Your task to perform on an android device: Go to notification settings Image 0: 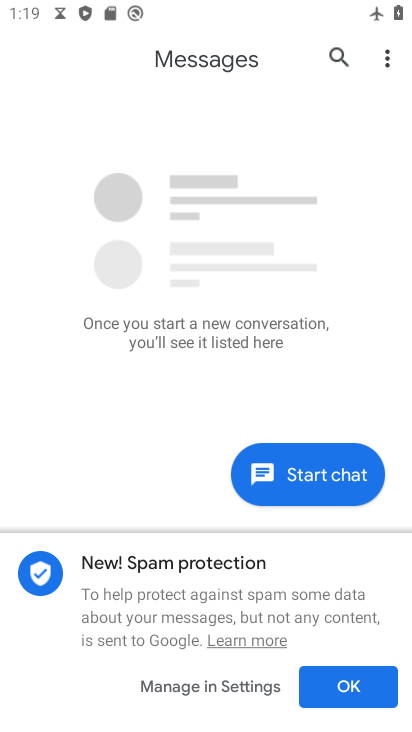
Step 0: press home button
Your task to perform on an android device: Go to notification settings Image 1: 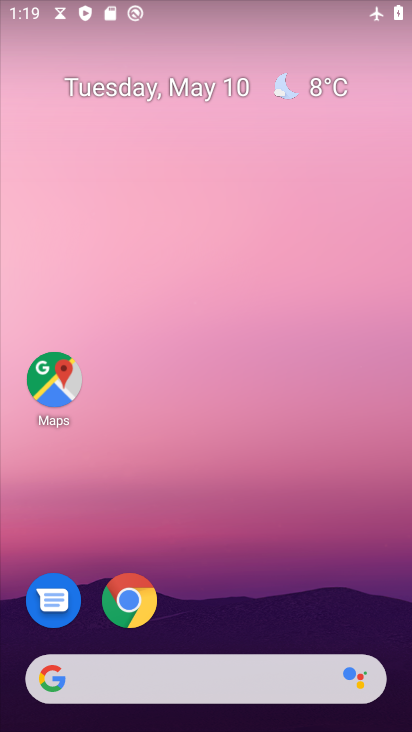
Step 1: drag from (212, 628) to (257, 64)
Your task to perform on an android device: Go to notification settings Image 2: 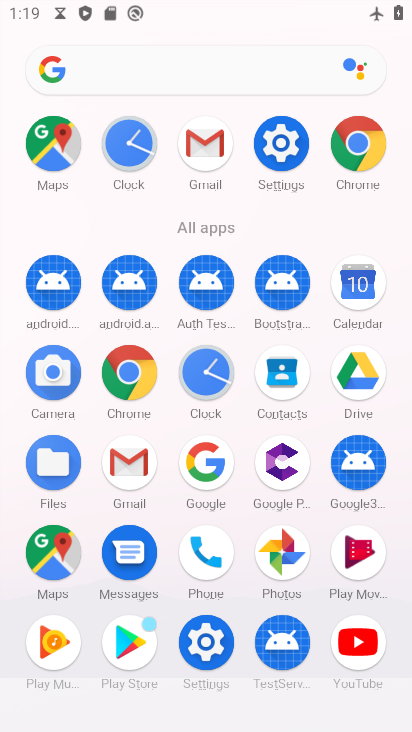
Step 2: click (277, 134)
Your task to perform on an android device: Go to notification settings Image 3: 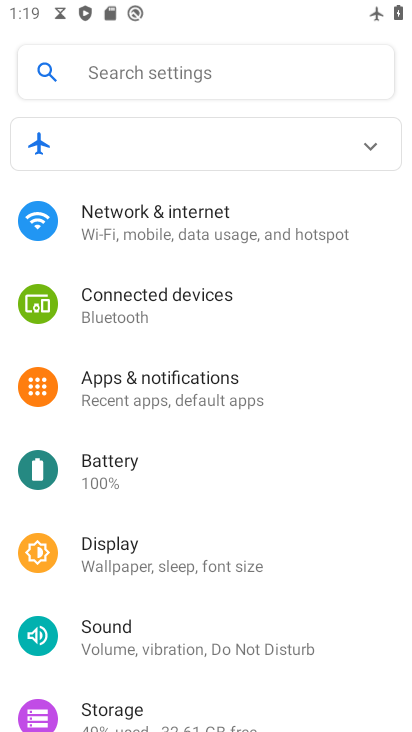
Step 3: click (172, 375)
Your task to perform on an android device: Go to notification settings Image 4: 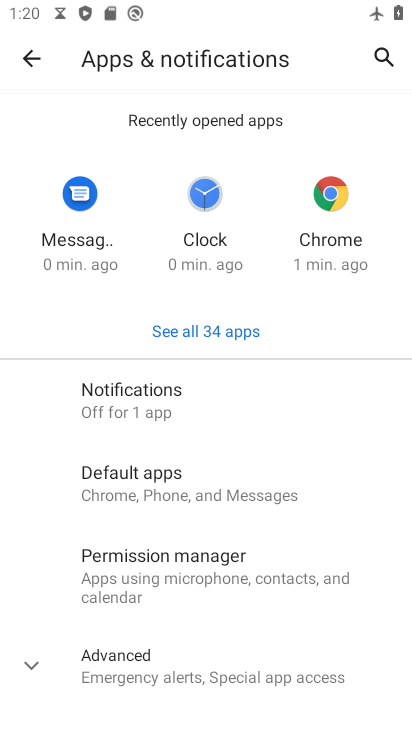
Step 4: click (193, 397)
Your task to perform on an android device: Go to notification settings Image 5: 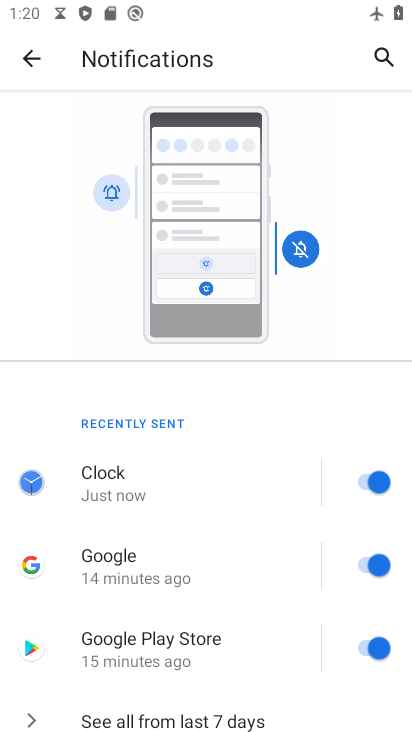
Step 5: drag from (265, 662) to (307, 215)
Your task to perform on an android device: Go to notification settings Image 6: 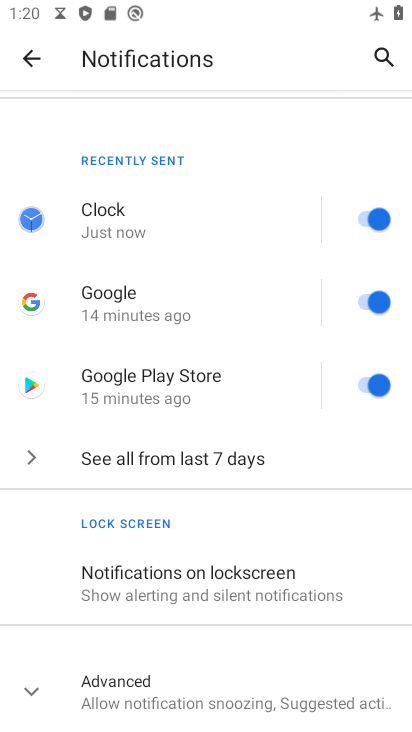
Step 6: click (372, 213)
Your task to perform on an android device: Go to notification settings Image 7: 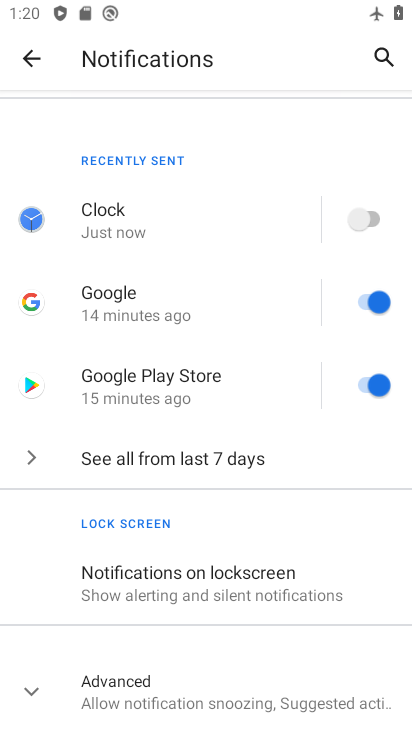
Step 7: task complete